Your task to perform on an android device: create a new album in the google photos Image 0: 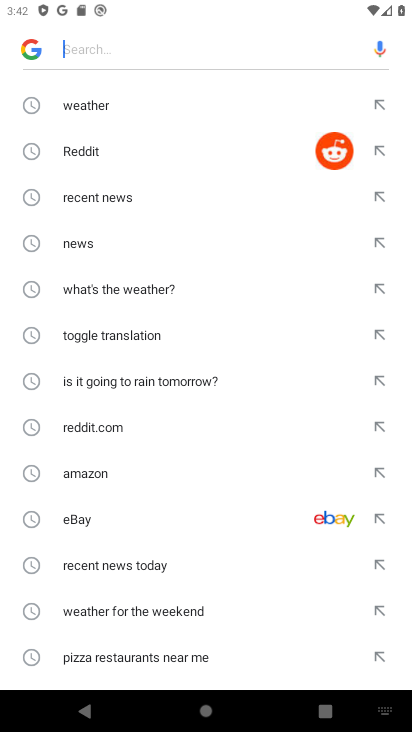
Step 0: press home button
Your task to perform on an android device: create a new album in the google photos Image 1: 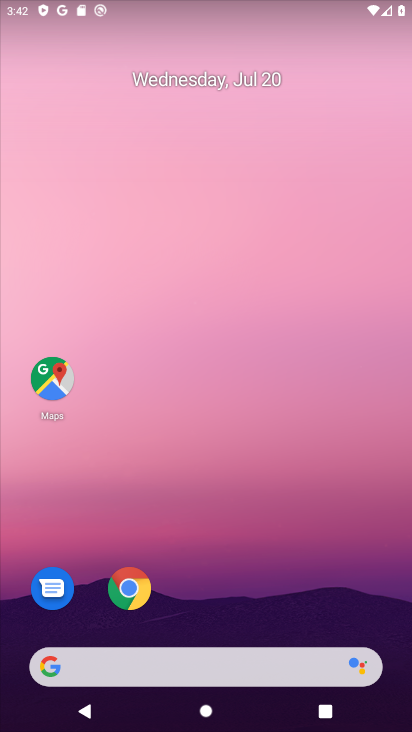
Step 1: drag from (176, 607) to (137, 29)
Your task to perform on an android device: create a new album in the google photos Image 2: 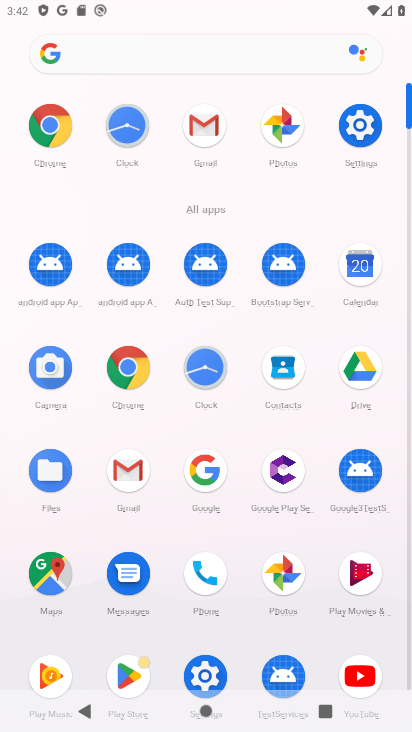
Step 2: click (285, 590)
Your task to perform on an android device: create a new album in the google photos Image 3: 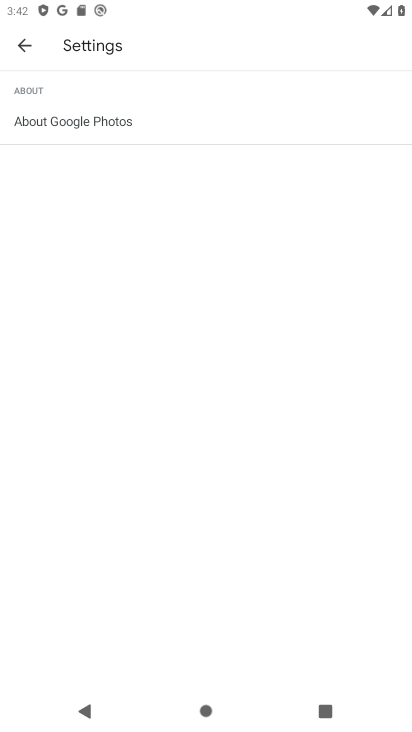
Step 3: click (26, 59)
Your task to perform on an android device: create a new album in the google photos Image 4: 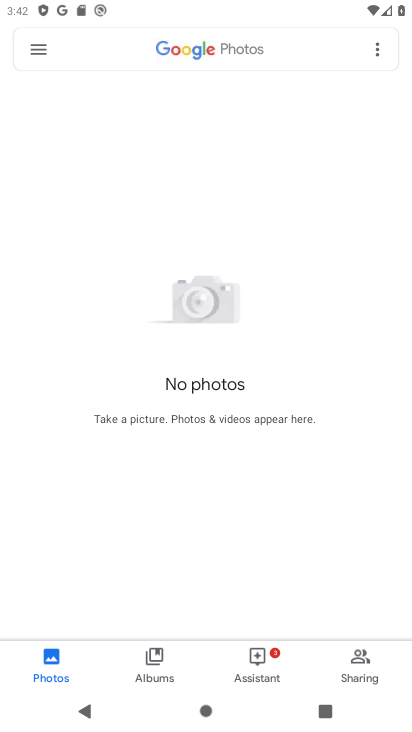
Step 4: task complete